Your task to perform on an android device: delete location history Image 0: 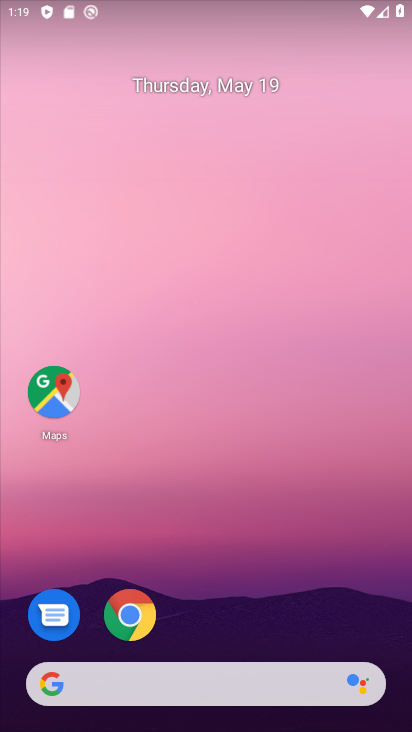
Step 0: drag from (213, 634) to (234, 56)
Your task to perform on an android device: delete location history Image 1: 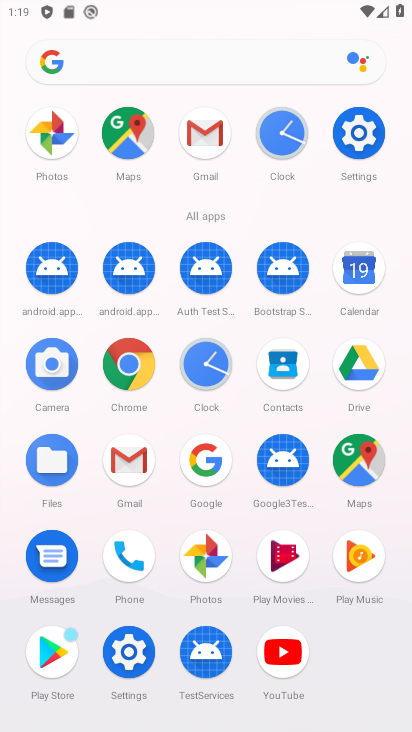
Step 1: click (362, 458)
Your task to perform on an android device: delete location history Image 2: 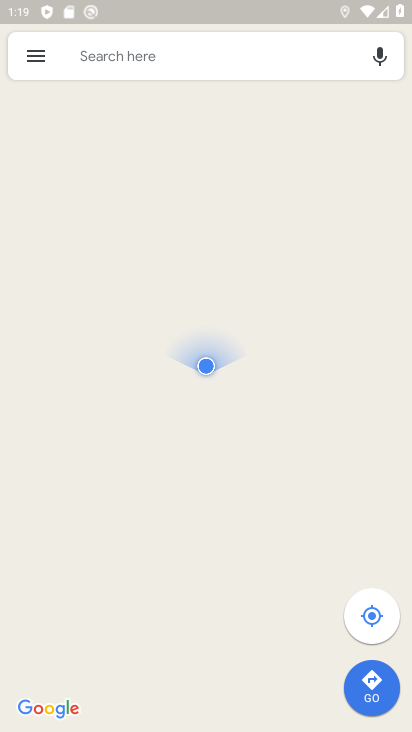
Step 2: click (26, 67)
Your task to perform on an android device: delete location history Image 3: 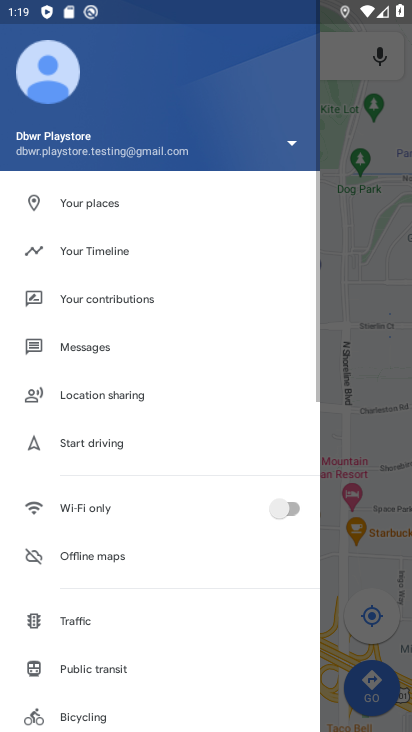
Step 3: click (127, 250)
Your task to perform on an android device: delete location history Image 4: 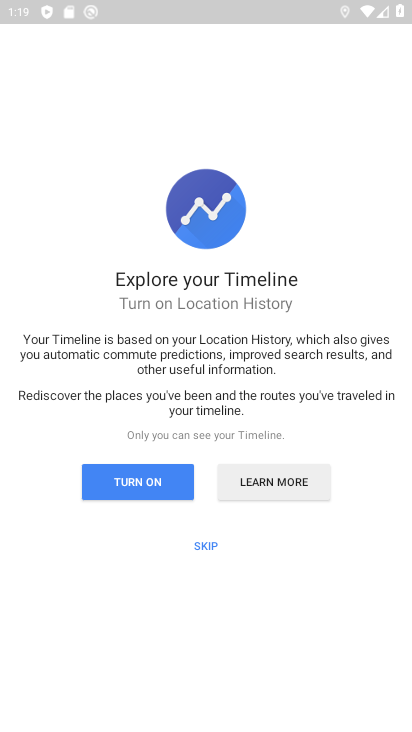
Step 4: click (191, 546)
Your task to perform on an android device: delete location history Image 5: 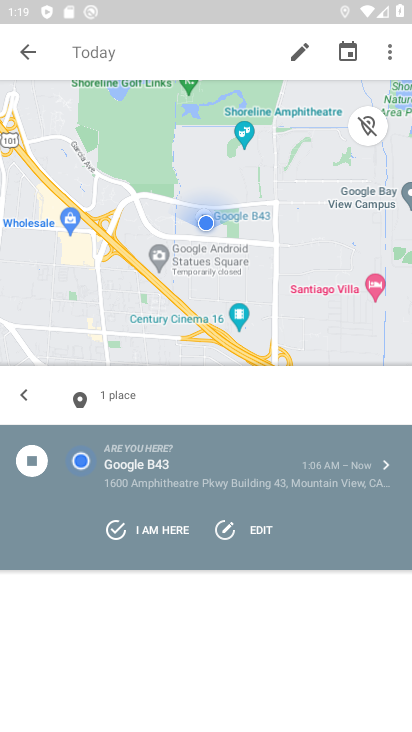
Step 5: click (379, 56)
Your task to perform on an android device: delete location history Image 6: 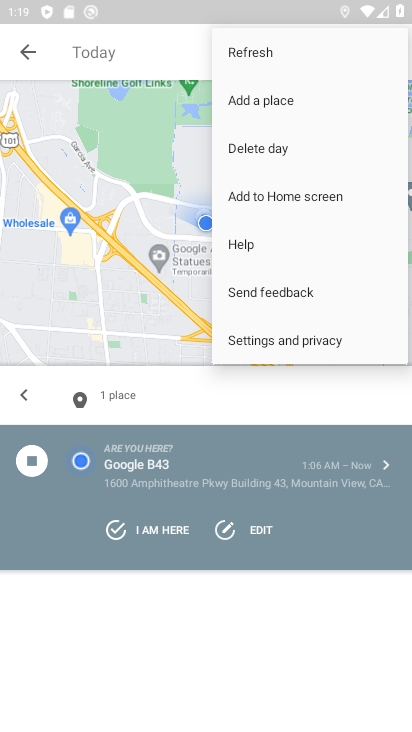
Step 6: click (267, 329)
Your task to perform on an android device: delete location history Image 7: 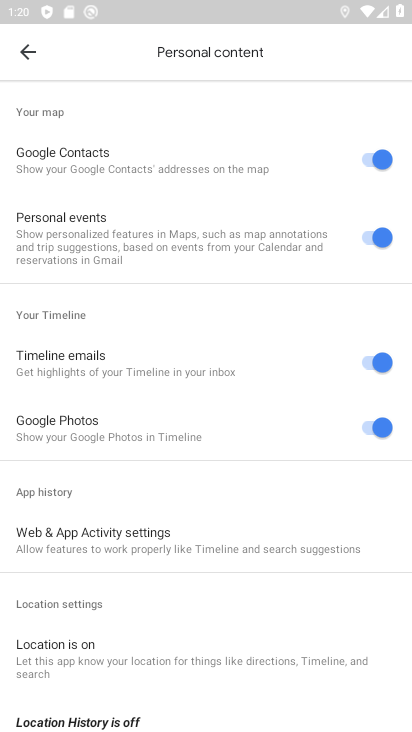
Step 7: drag from (142, 682) to (109, 226)
Your task to perform on an android device: delete location history Image 8: 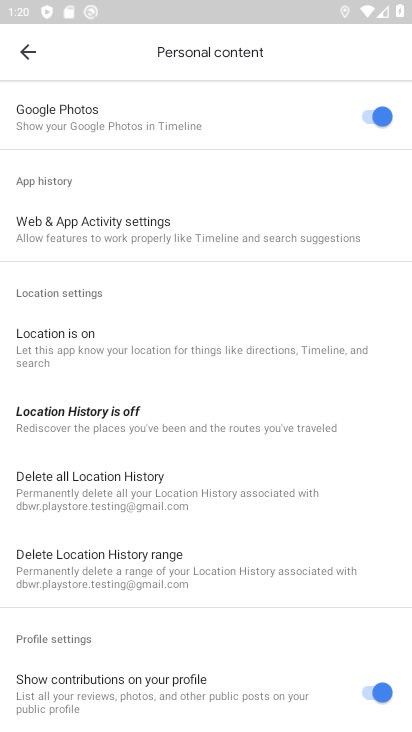
Step 8: click (93, 490)
Your task to perform on an android device: delete location history Image 9: 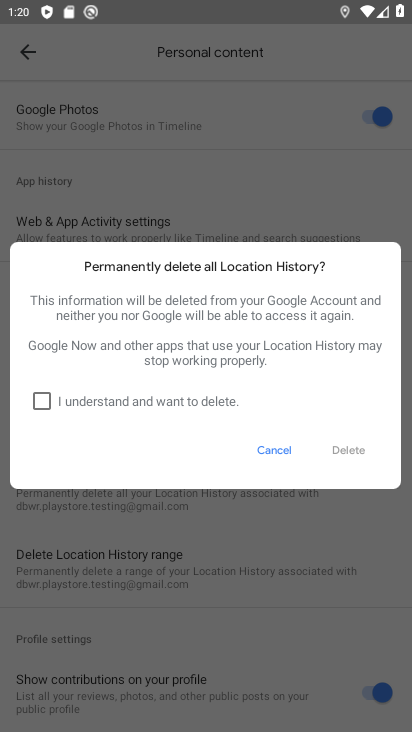
Step 9: click (209, 385)
Your task to perform on an android device: delete location history Image 10: 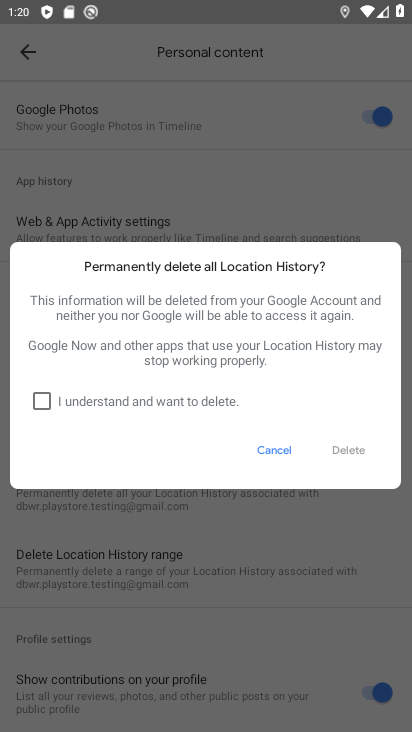
Step 10: click (91, 395)
Your task to perform on an android device: delete location history Image 11: 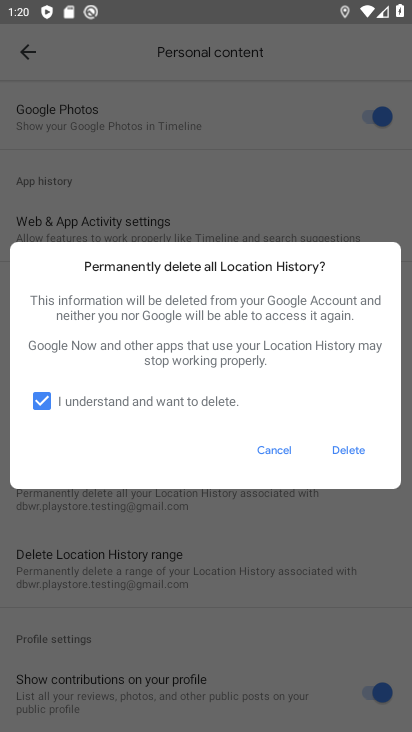
Step 11: click (336, 448)
Your task to perform on an android device: delete location history Image 12: 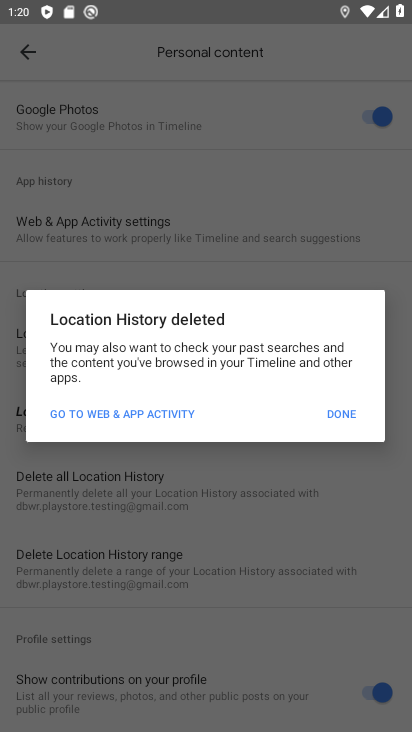
Step 12: click (340, 407)
Your task to perform on an android device: delete location history Image 13: 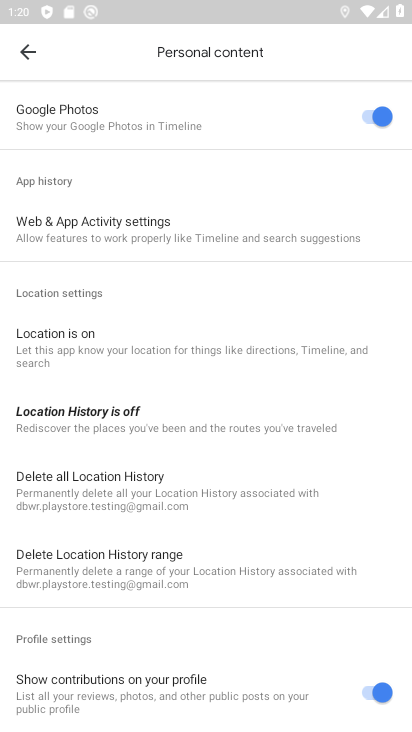
Step 13: task complete